Your task to perform on an android device: see sites visited before in the chrome app Image 0: 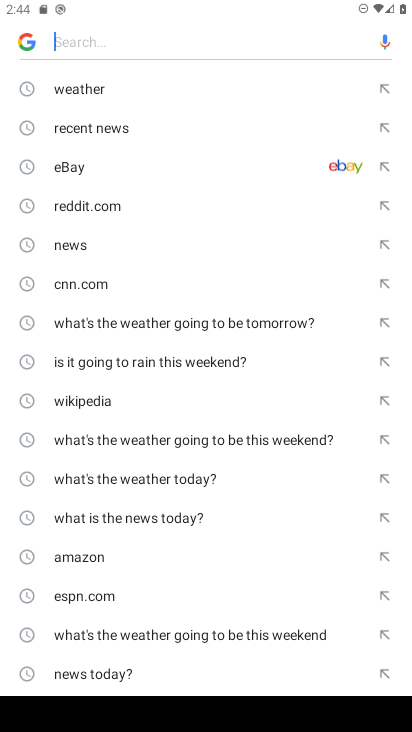
Step 0: press home button
Your task to perform on an android device: see sites visited before in the chrome app Image 1: 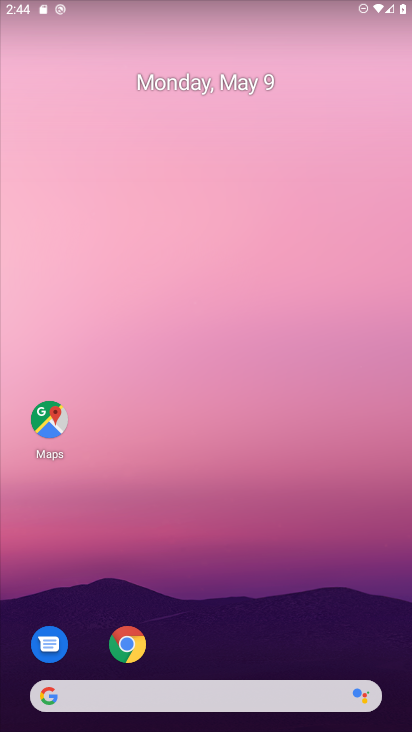
Step 1: click (126, 660)
Your task to perform on an android device: see sites visited before in the chrome app Image 2: 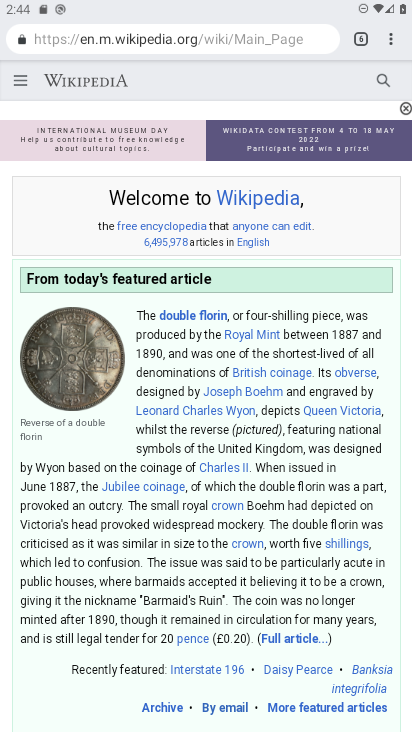
Step 2: click (392, 40)
Your task to perform on an android device: see sites visited before in the chrome app Image 3: 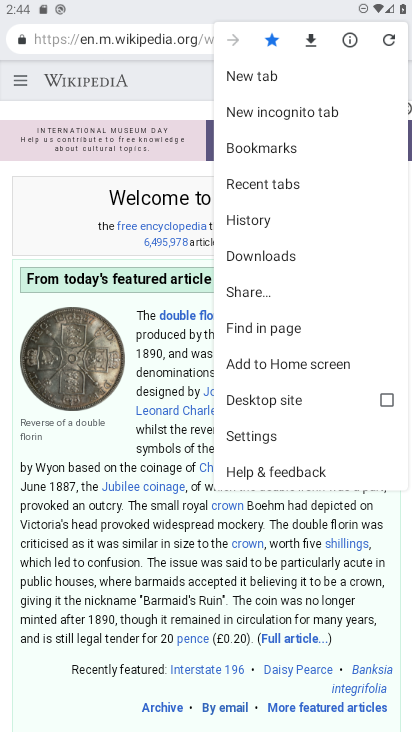
Step 3: click (242, 232)
Your task to perform on an android device: see sites visited before in the chrome app Image 4: 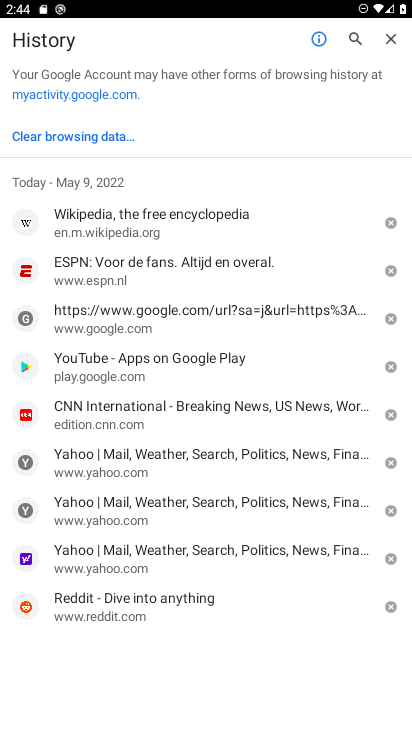
Step 4: task complete